Your task to perform on an android device: Open calendar and show me the first week of next month Image 0: 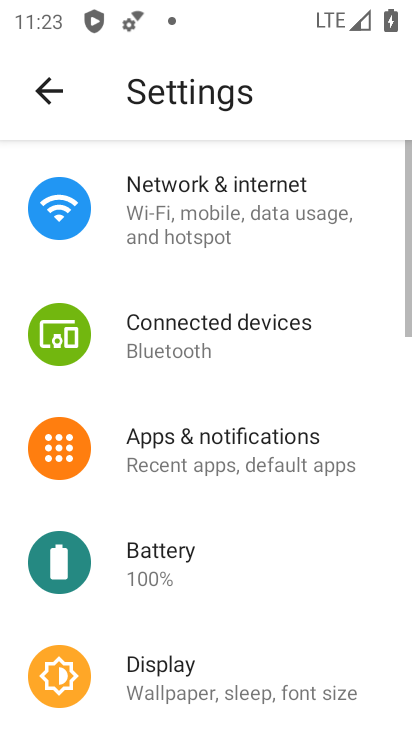
Step 0: click (234, 636)
Your task to perform on an android device: Open calendar and show me the first week of next month Image 1: 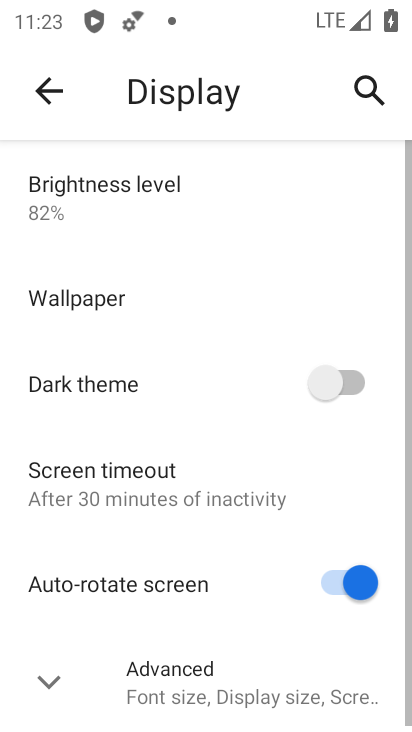
Step 1: press home button
Your task to perform on an android device: Open calendar and show me the first week of next month Image 2: 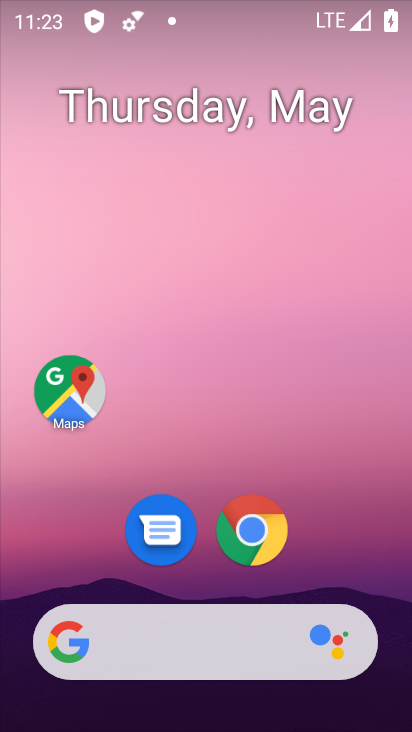
Step 2: drag from (236, 671) to (270, 1)
Your task to perform on an android device: Open calendar and show me the first week of next month Image 3: 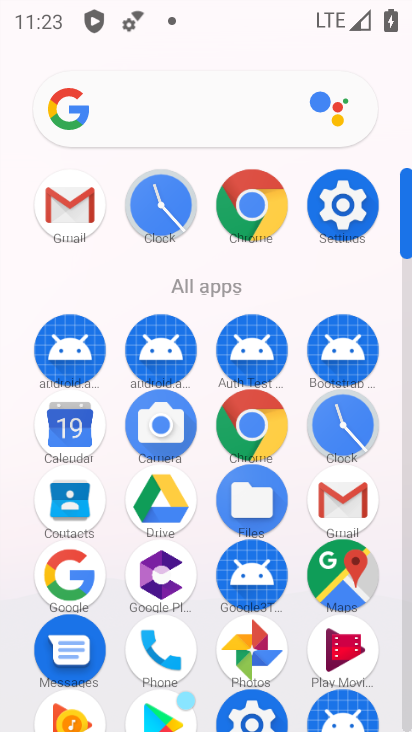
Step 3: click (66, 438)
Your task to perform on an android device: Open calendar and show me the first week of next month Image 4: 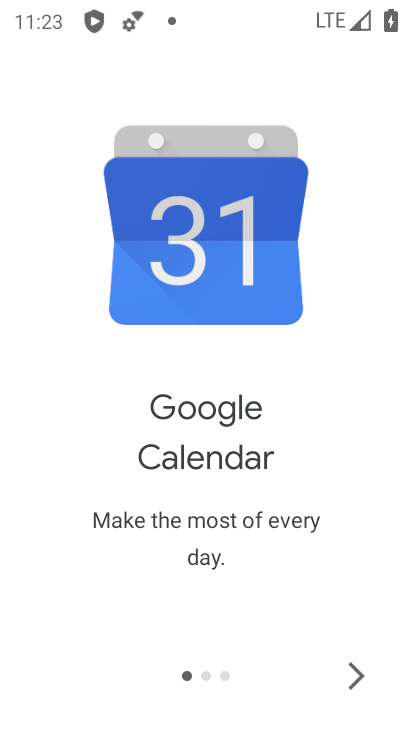
Step 4: click (363, 671)
Your task to perform on an android device: Open calendar and show me the first week of next month Image 5: 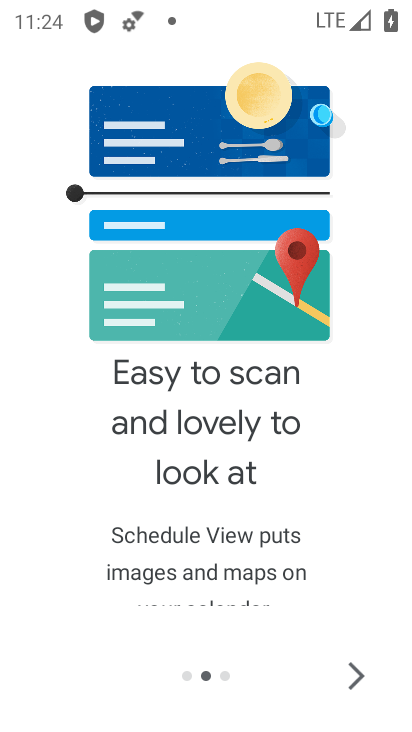
Step 5: click (363, 671)
Your task to perform on an android device: Open calendar and show me the first week of next month Image 6: 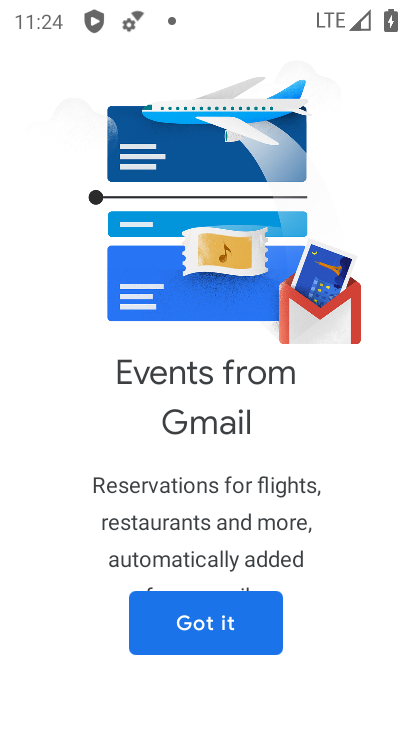
Step 6: click (235, 640)
Your task to perform on an android device: Open calendar and show me the first week of next month Image 7: 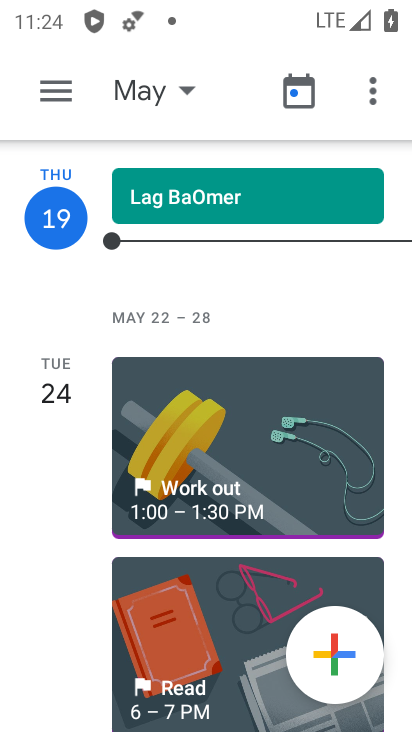
Step 7: drag from (151, 87) to (207, 428)
Your task to perform on an android device: Open calendar and show me the first week of next month Image 8: 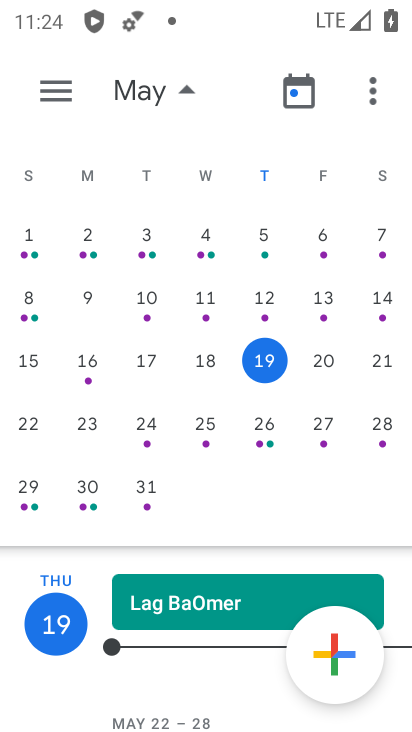
Step 8: drag from (353, 246) to (6, 396)
Your task to perform on an android device: Open calendar and show me the first week of next month Image 9: 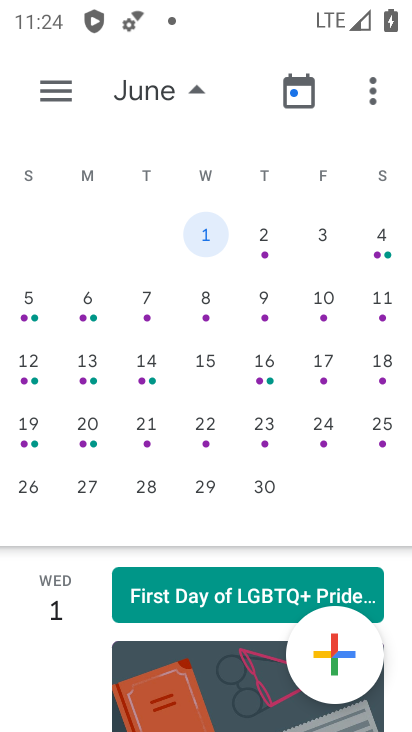
Step 9: click (212, 239)
Your task to perform on an android device: Open calendar and show me the first week of next month Image 10: 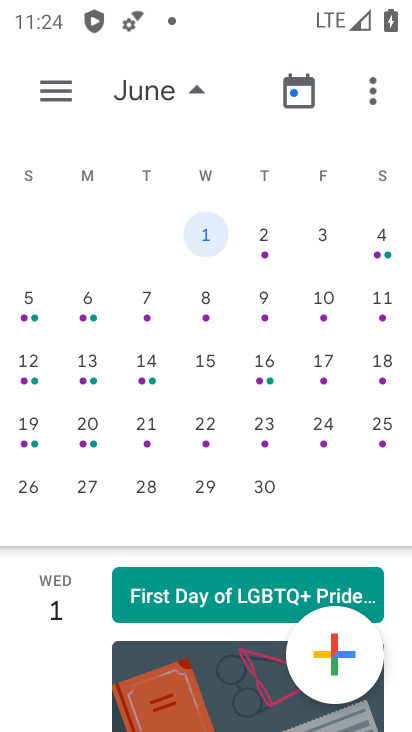
Step 10: task complete